Your task to perform on an android device: open app "Skype" (install if not already installed) and go to login screen Image 0: 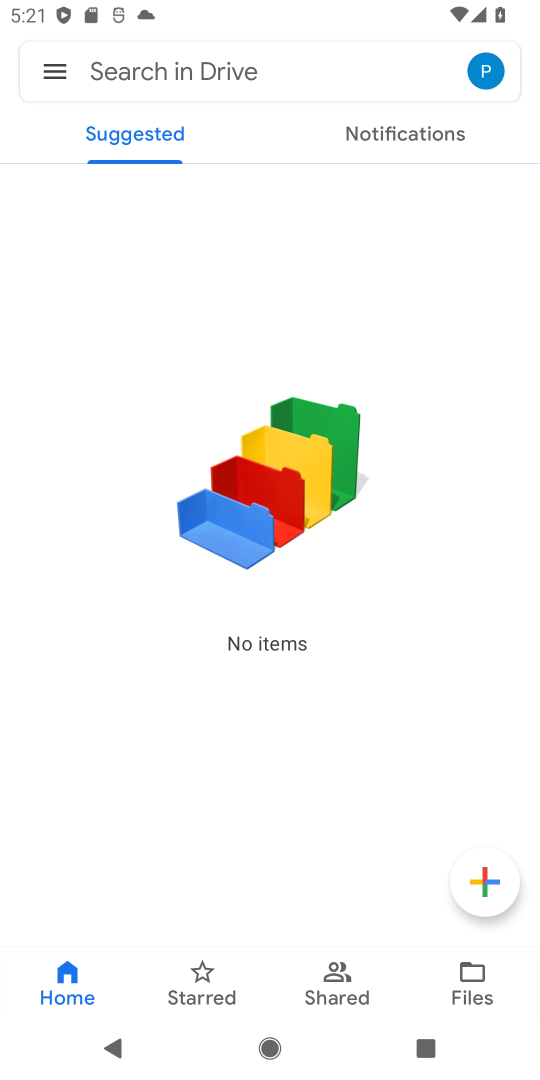
Step 0: press home button
Your task to perform on an android device: open app "Skype" (install if not already installed) and go to login screen Image 1: 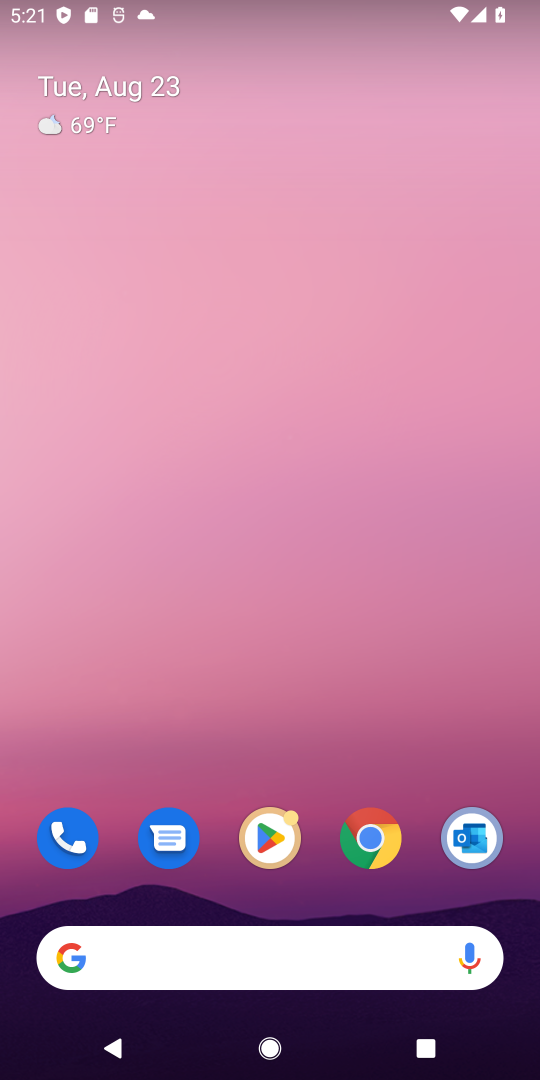
Step 1: click (266, 839)
Your task to perform on an android device: open app "Skype" (install if not already installed) and go to login screen Image 2: 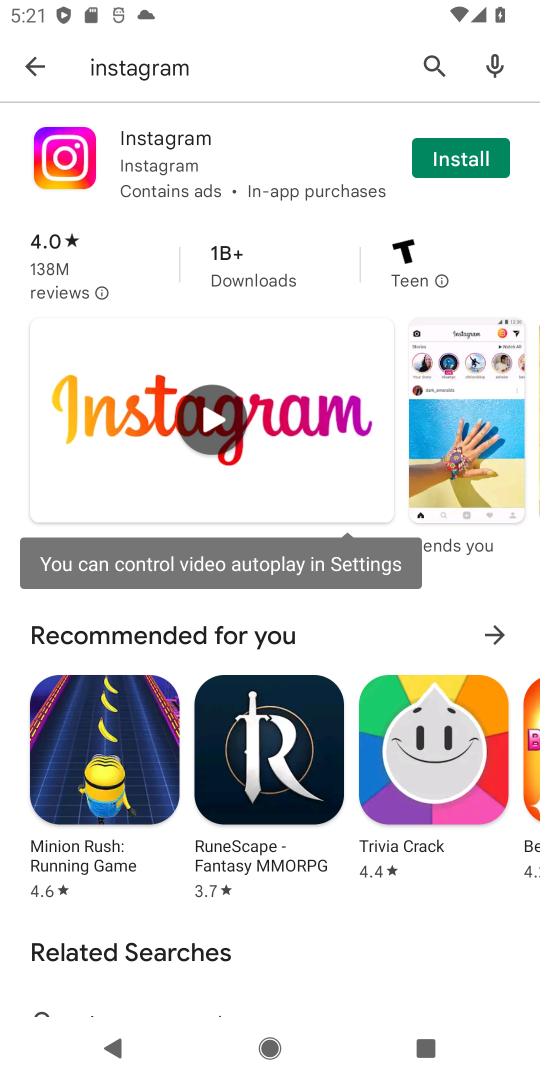
Step 2: click (434, 65)
Your task to perform on an android device: open app "Skype" (install if not already installed) and go to login screen Image 3: 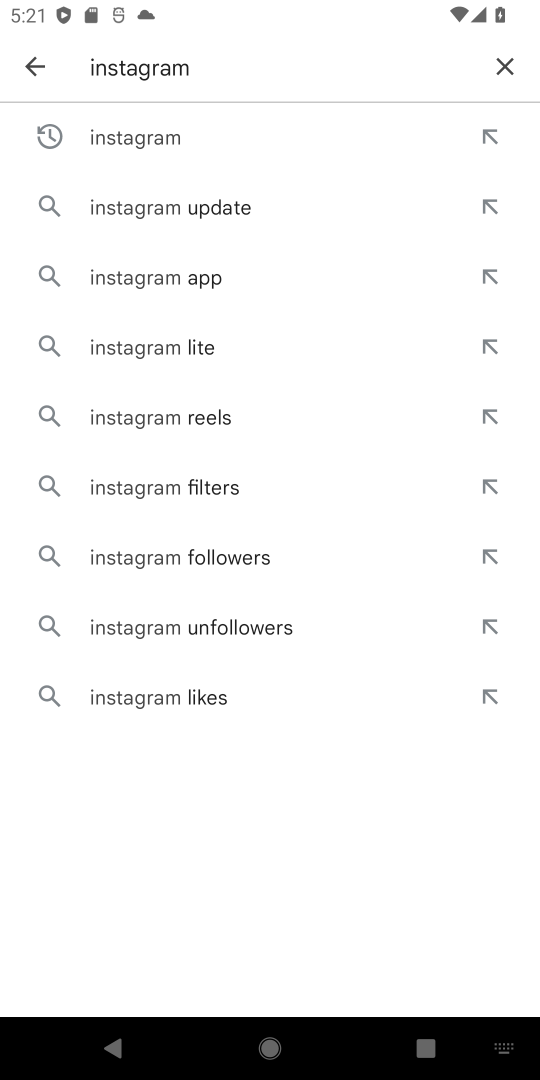
Step 3: click (500, 58)
Your task to perform on an android device: open app "Skype" (install if not already installed) and go to login screen Image 4: 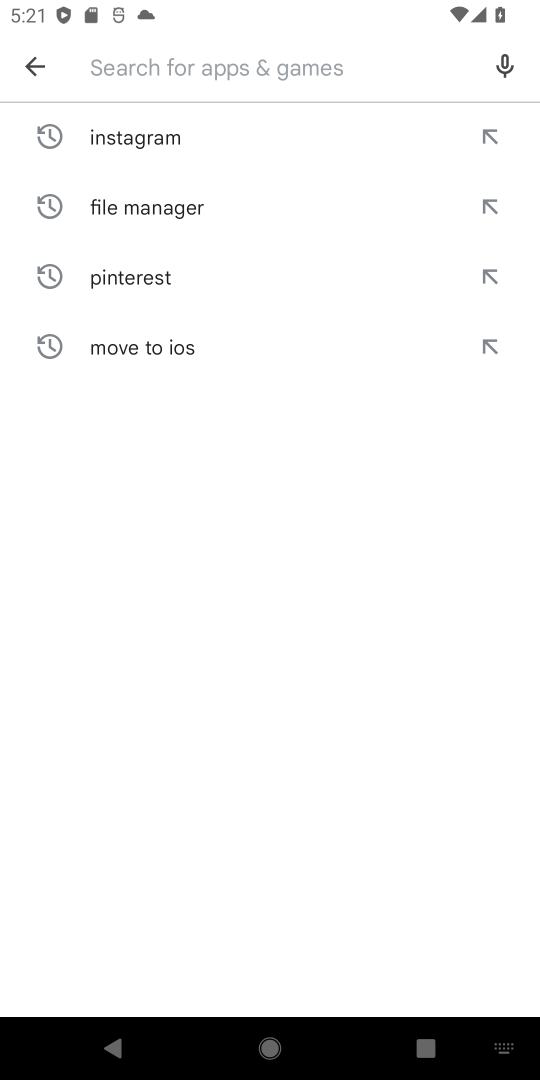
Step 4: type "Skype"
Your task to perform on an android device: open app "Skype" (install if not already installed) and go to login screen Image 5: 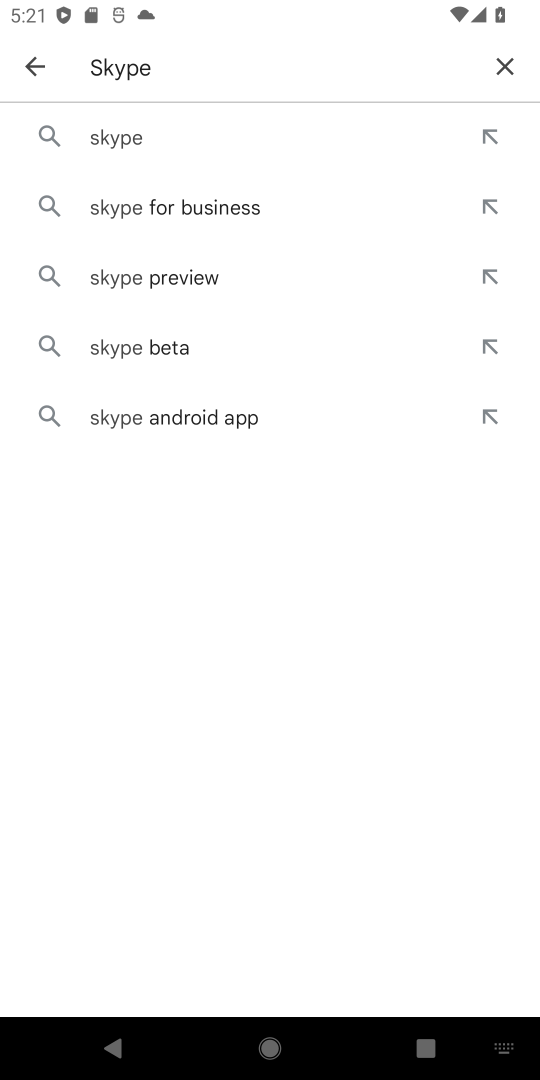
Step 5: click (109, 131)
Your task to perform on an android device: open app "Skype" (install if not already installed) and go to login screen Image 6: 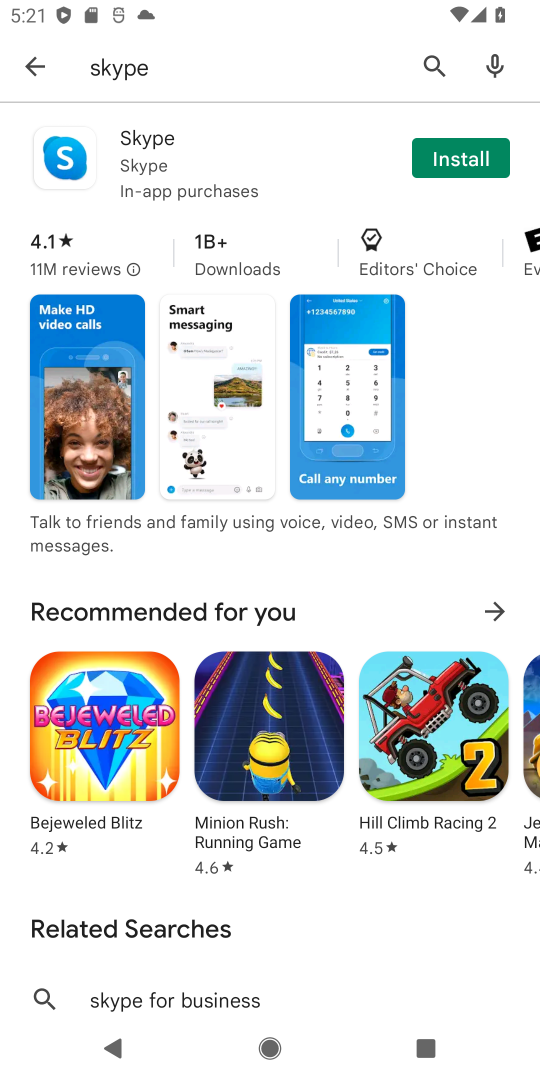
Step 6: click (453, 162)
Your task to perform on an android device: open app "Skype" (install if not already installed) and go to login screen Image 7: 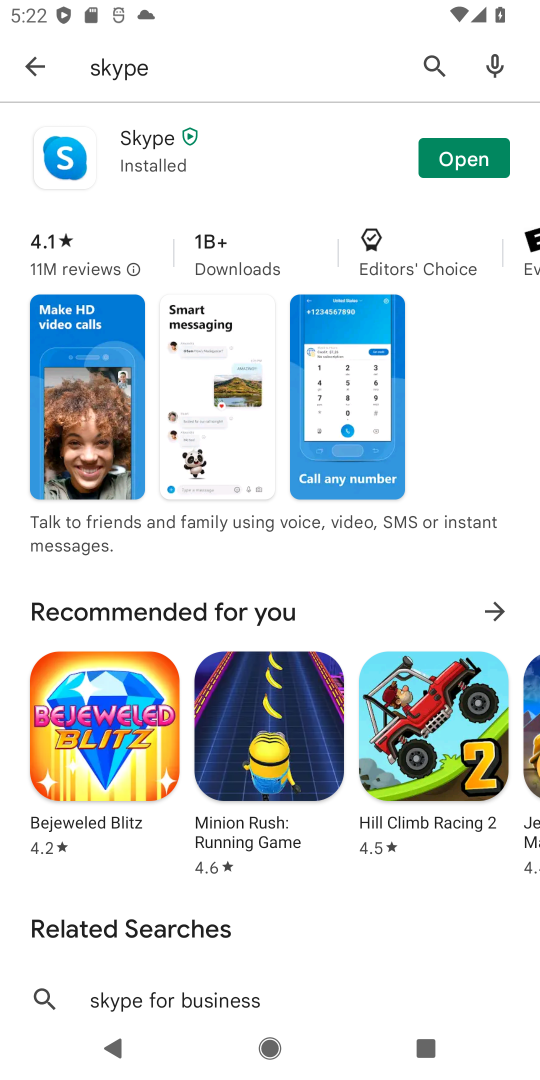
Step 7: click (449, 167)
Your task to perform on an android device: open app "Skype" (install if not already installed) and go to login screen Image 8: 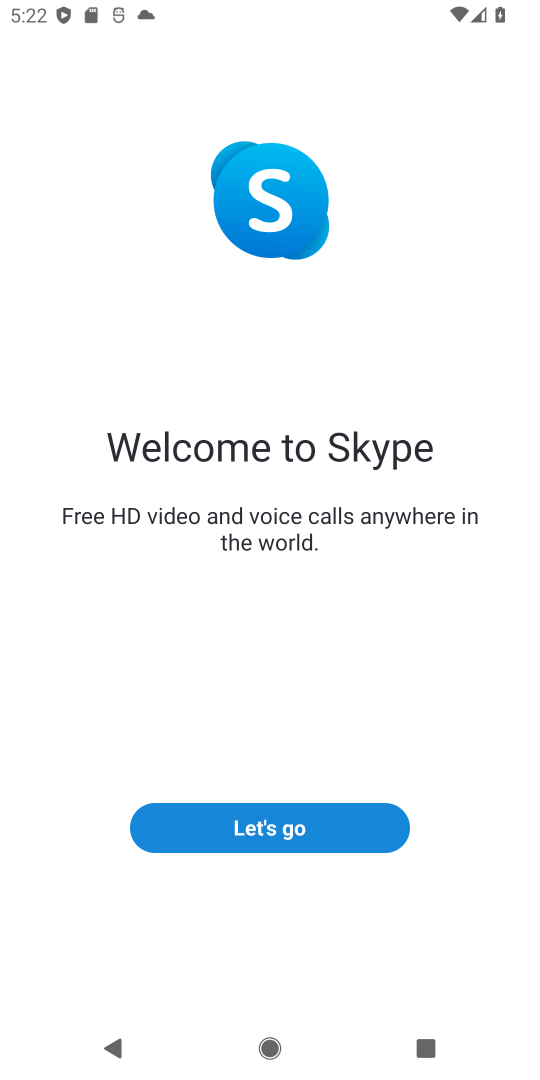
Step 8: click (301, 825)
Your task to perform on an android device: open app "Skype" (install if not already installed) and go to login screen Image 9: 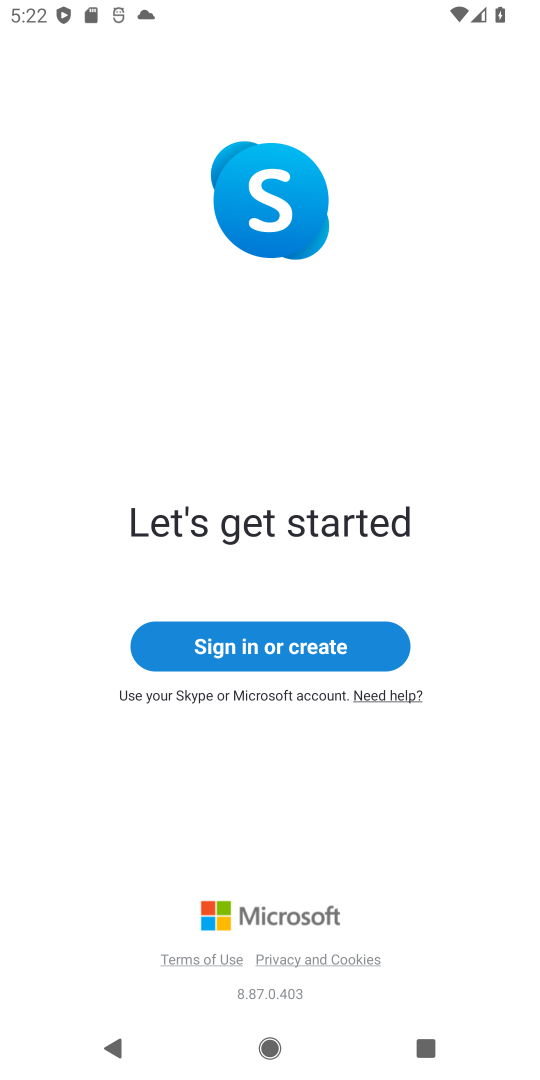
Step 9: task complete